Your task to perform on an android device: Do I have any events tomorrow? Image 0: 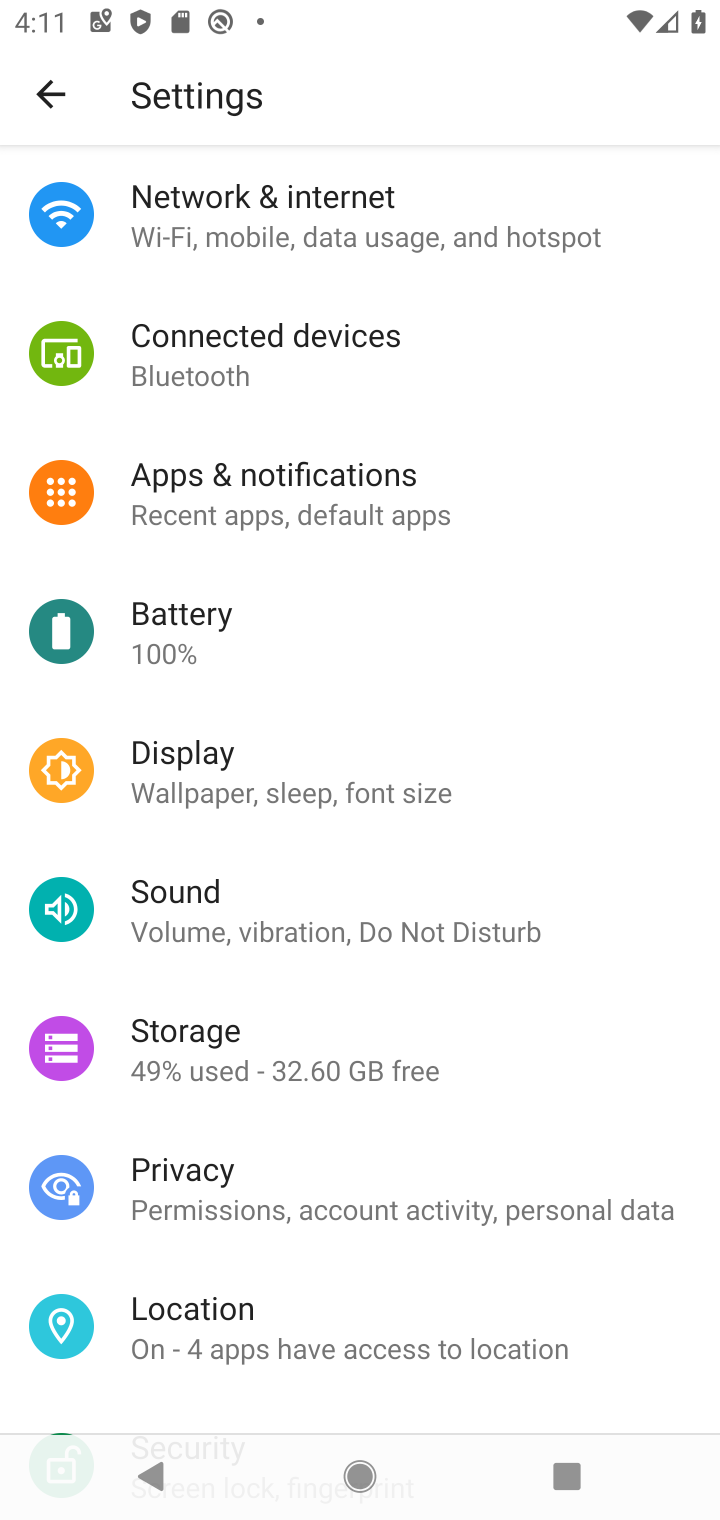
Step 0: press home button
Your task to perform on an android device: Do I have any events tomorrow? Image 1: 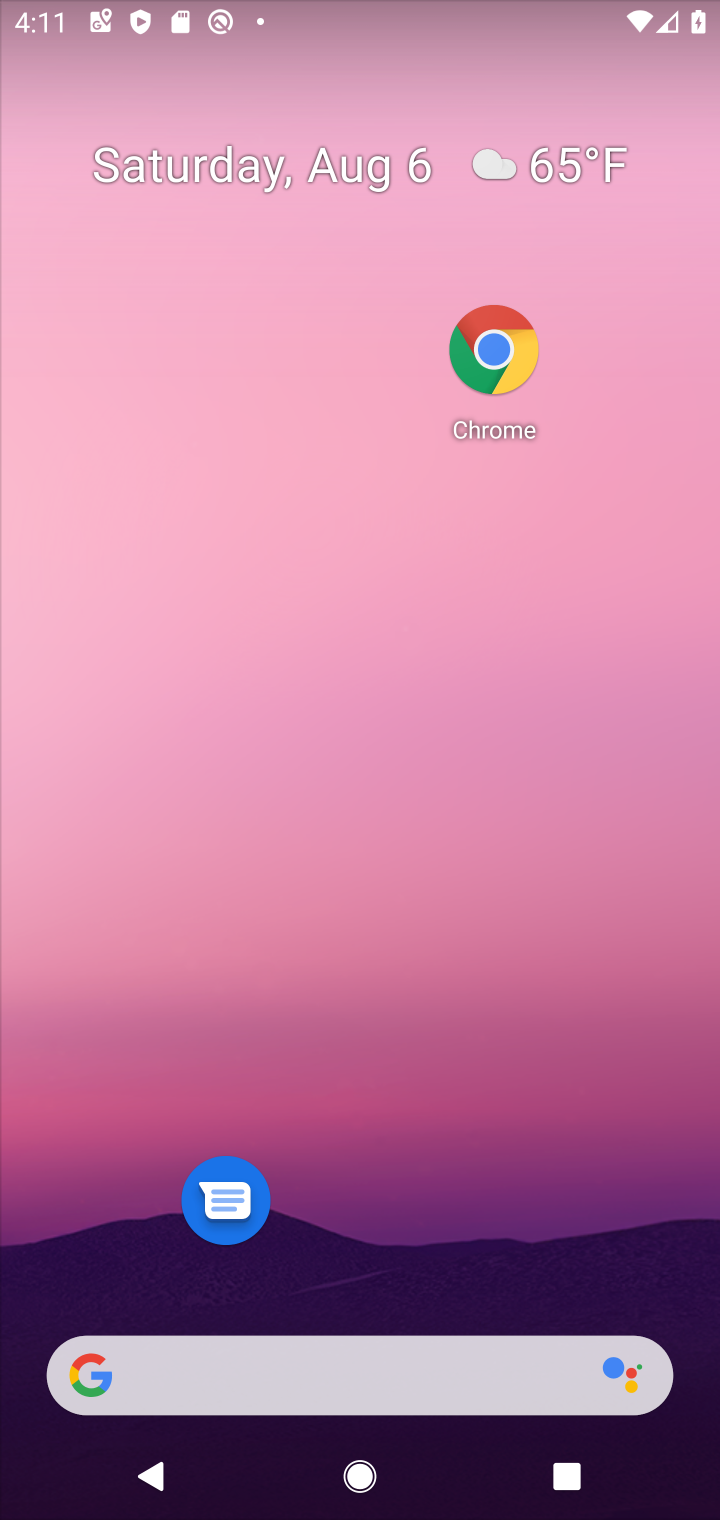
Step 1: drag from (226, 1344) to (275, 605)
Your task to perform on an android device: Do I have any events tomorrow? Image 2: 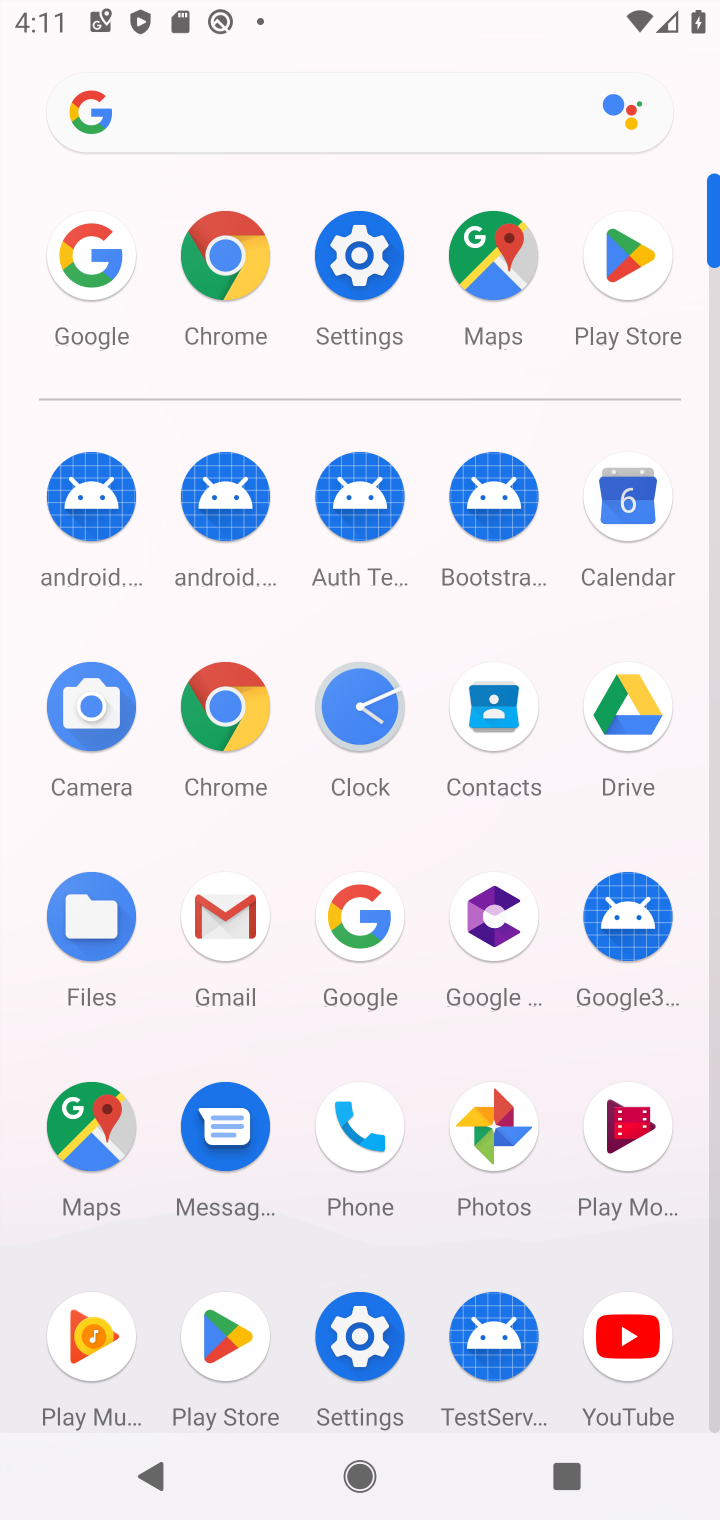
Step 2: click (617, 545)
Your task to perform on an android device: Do I have any events tomorrow? Image 3: 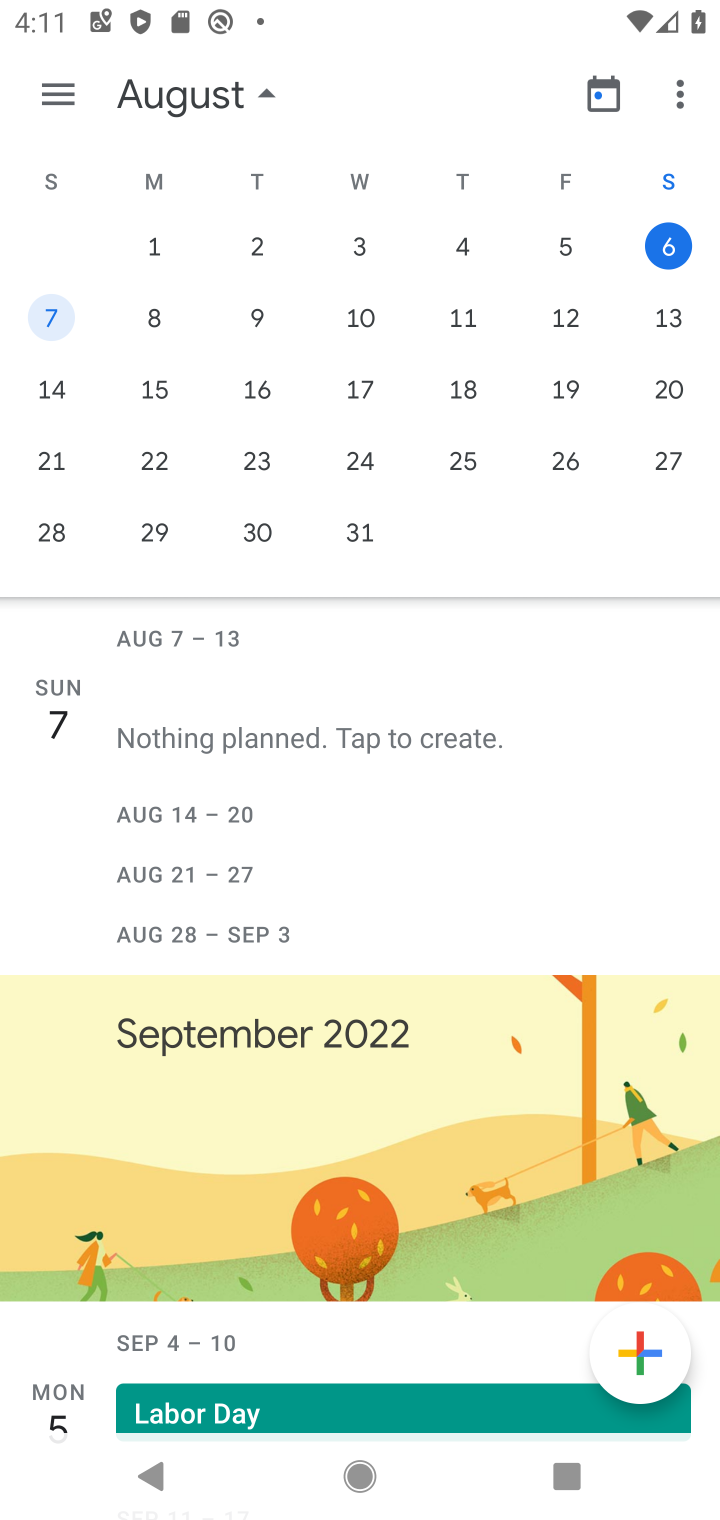
Step 3: click (62, 309)
Your task to perform on an android device: Do I have any events tomorrow? Image 4: 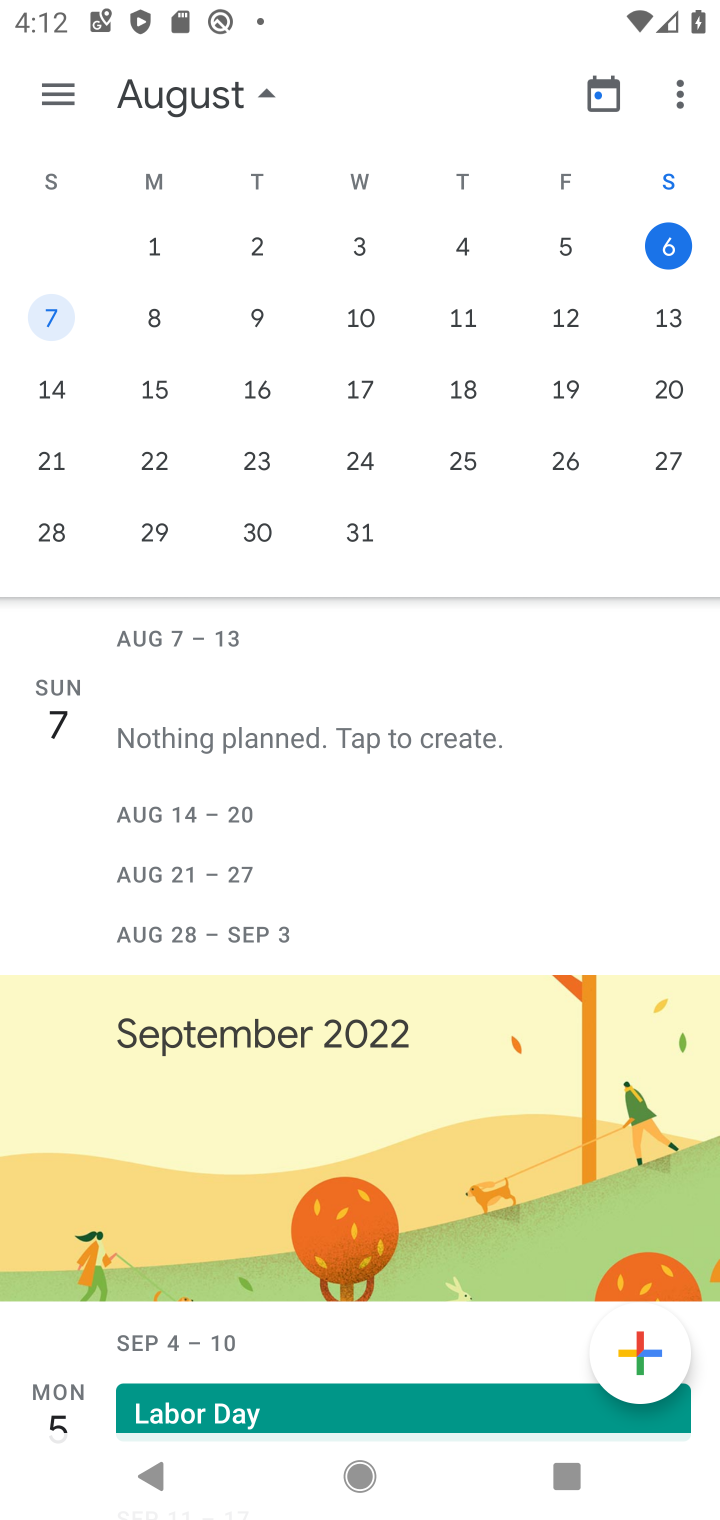
Step 4: task complete